Your task to perform on an android device: empty trash in the gmail app Image 0: 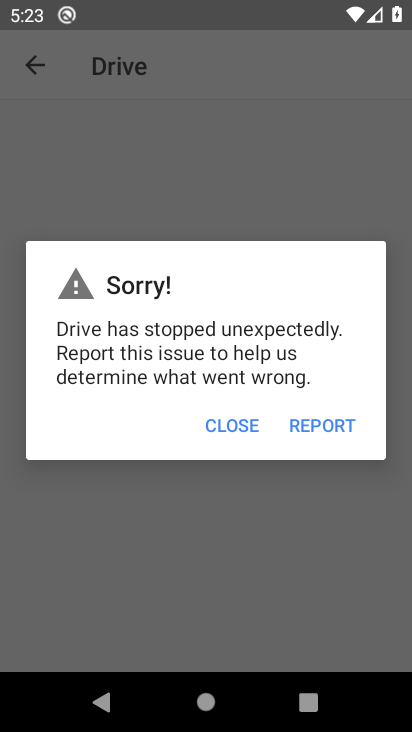
Step 0: click (227, 422)
Your task to perform on an android device: empty trash in the gmail app Image 1: 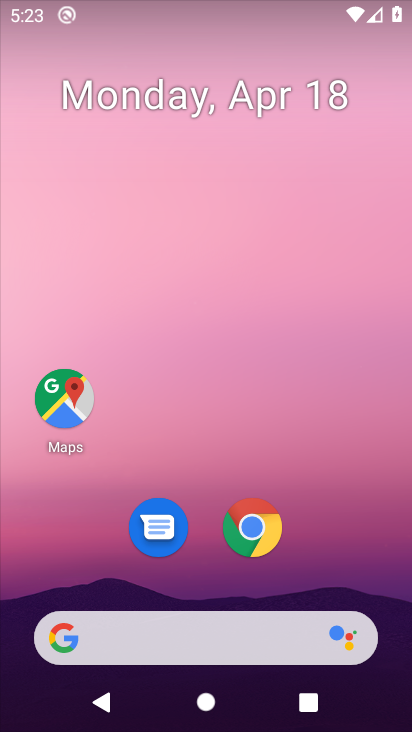
Step 1: drag from (200, 513) to (223, 211)
Your task to perform on an android device: empty trash in the gmail app Image 2: 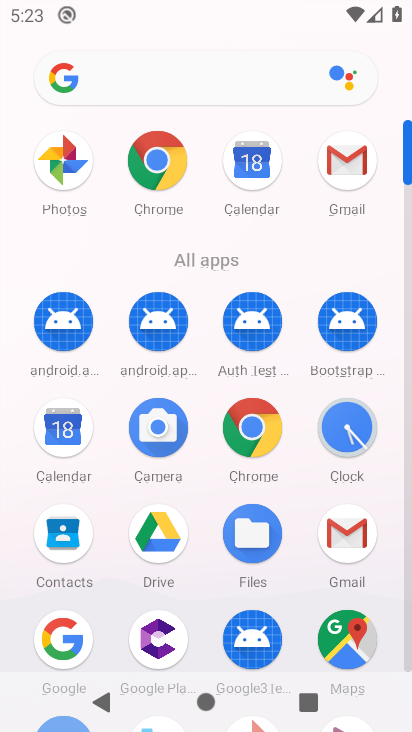
Step 2: click (357, 162)
Your task to perform on an android device: empty trash in the gmail app Image 3: 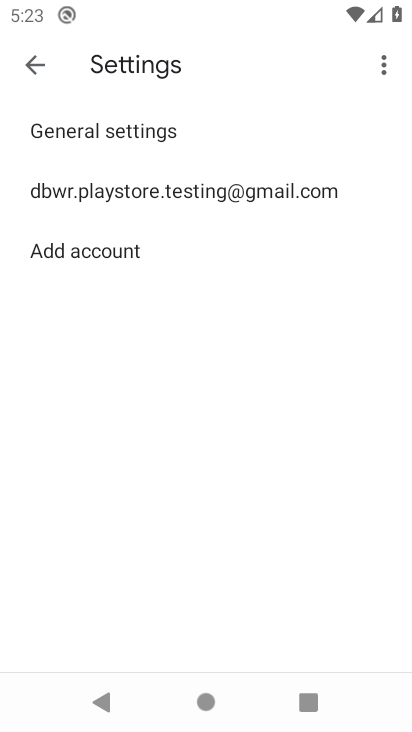
Step 3: click (21, 60)
Your task to perform on an android device: empty trash in the gmail app Image 4: 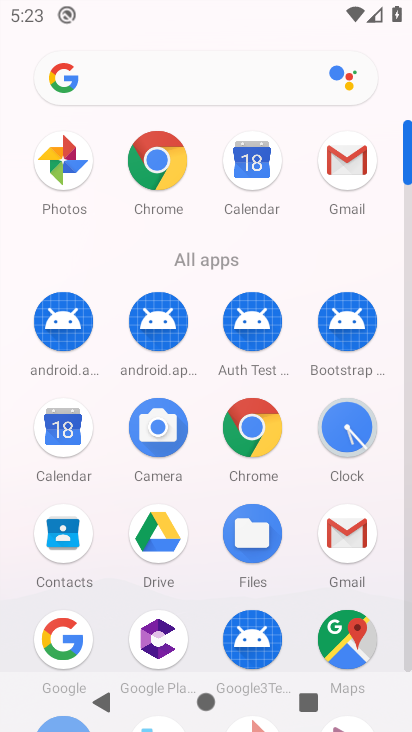
Step 4: click (340, 168)
Your task to perform on an android device: empty trash in the gmail app Image 5: 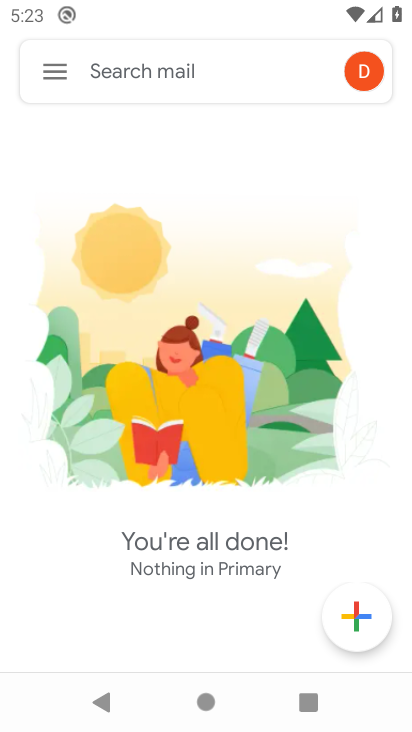
Step 5: click (59, 67)
Your task to perform on an android device: empty trash in the gmail app Image 6: 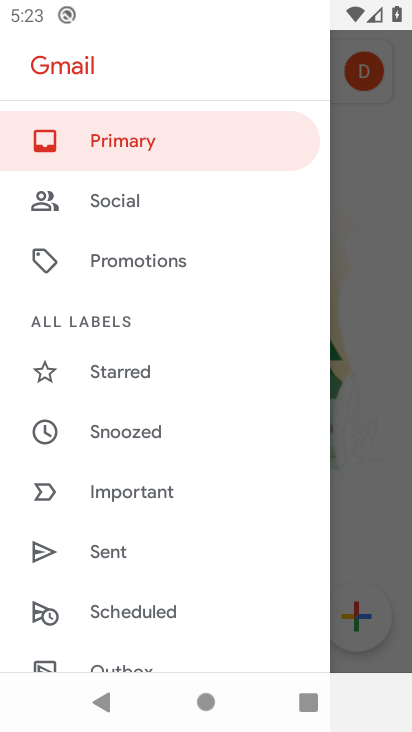
Step 6: drag from (125, 571) to (136, 247)
Your task to perform on an android device: empty trash in the gmail app Image 7: 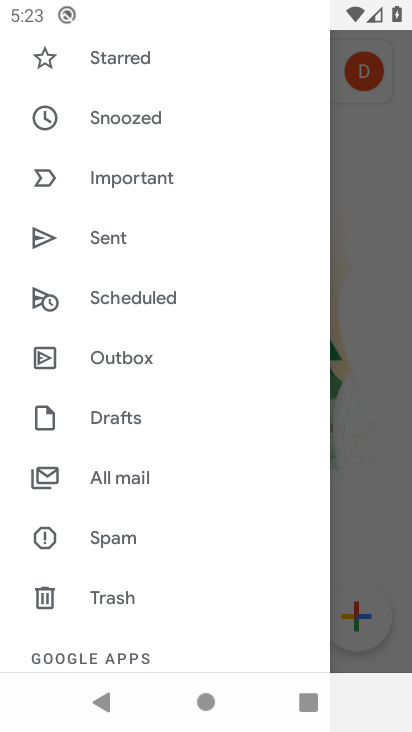
Step 7: drag from (119, 652) to (120, 352)
Your task to perform on an android device: empty trash in the gmail app Image 8: 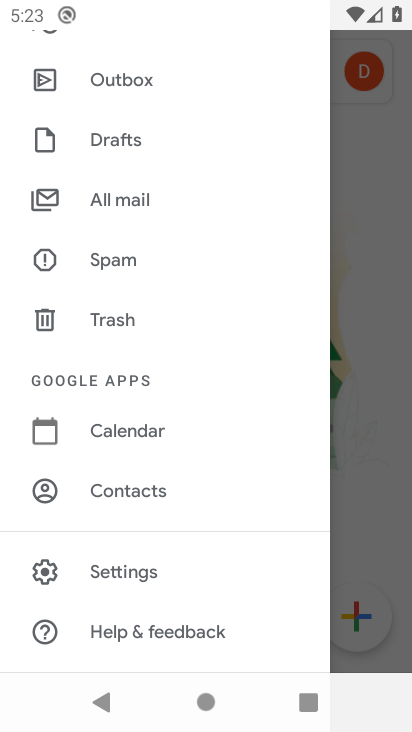
Step 8: click (113, 320)
Your task to perform on an android device: empty trash in the gmail app Image 9: 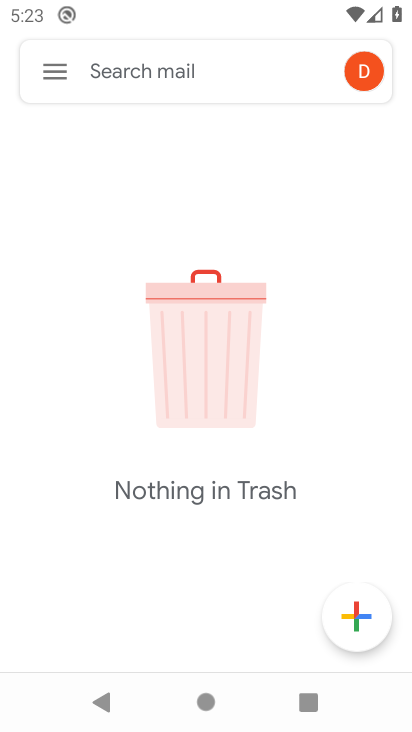
Step 9: task complete